Your task to perform on an android device: Go to Wikipedia Image 0: 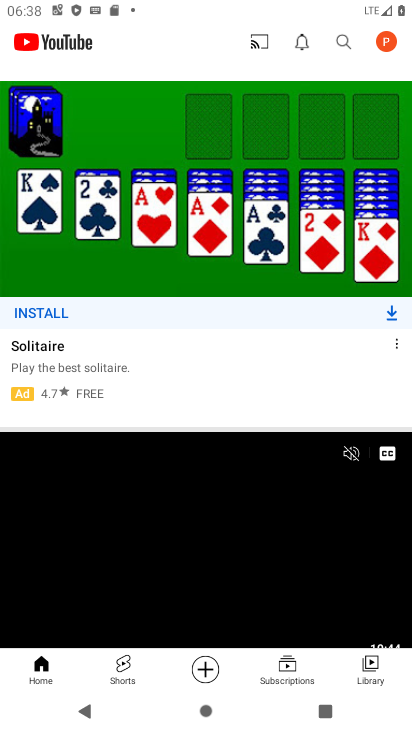
Step 0: press home button
Your task to perform on an android device: Go to Wikipedia Image 1: 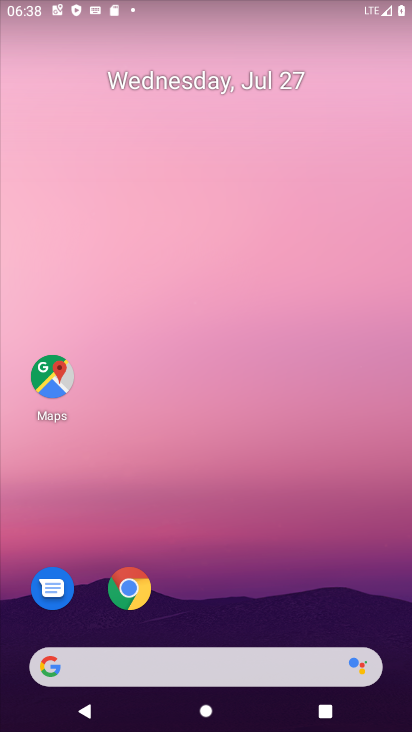
Step 1: drag from (228, 674) to (319, 109)
Your task to perform on an android device: Go to Wikipedia Image 2: 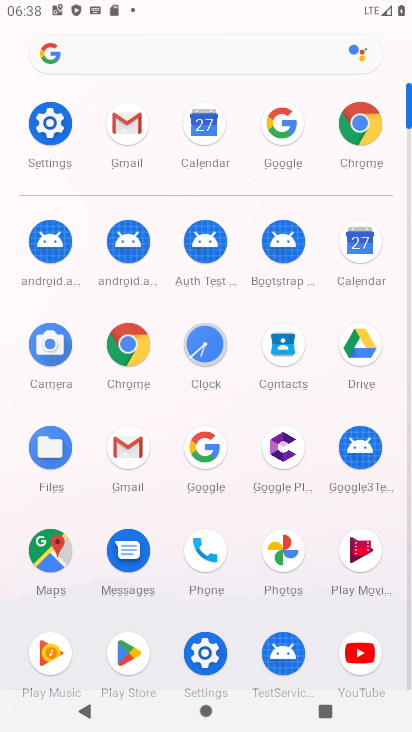
Step 2: click (139, 330)
Your task to perform on an android device: Go to Wikipedia Image 3: 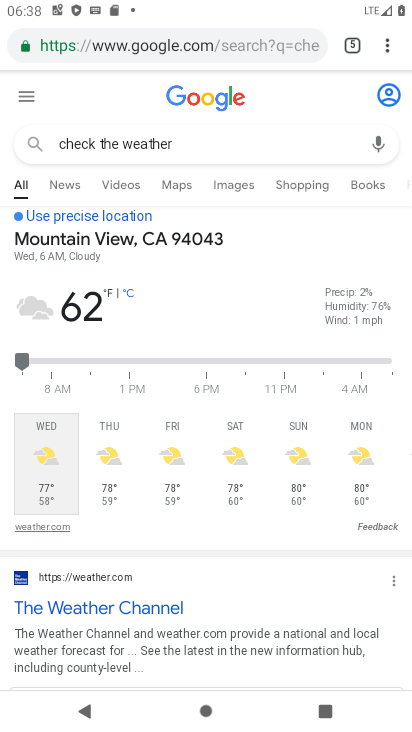
Step 3: drag from (384, 44) to (341, 72)
Your task to perform on an android device: Go to Wikipedia Image 4: 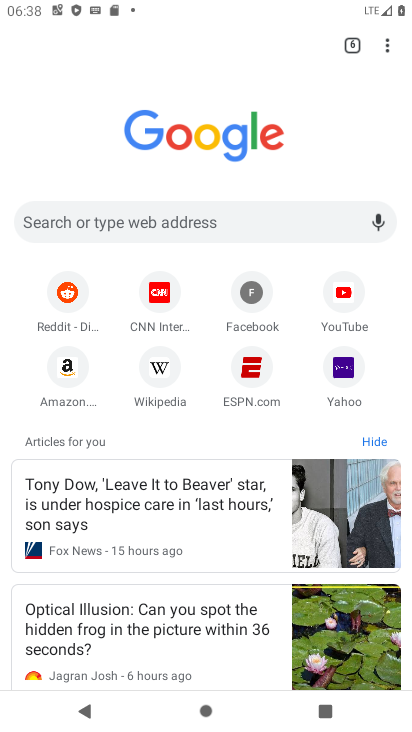
Step 4: click (154, 372)
Your task to perform on an android device: Go to Wikipedia Image 5: 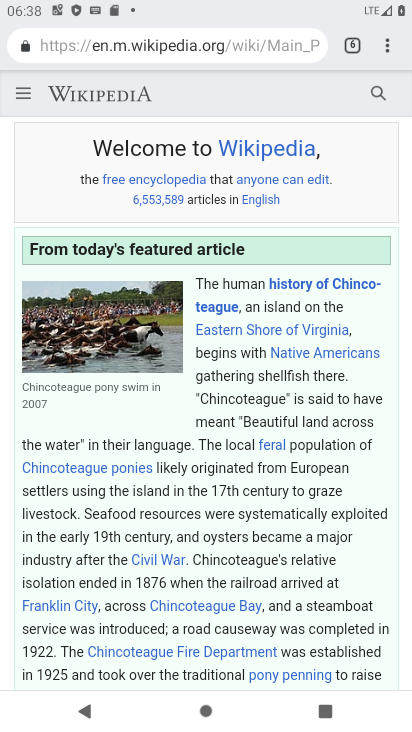
Step 5: task complete